Your task to perform on an android device: star an email in the gmail app Image 0: 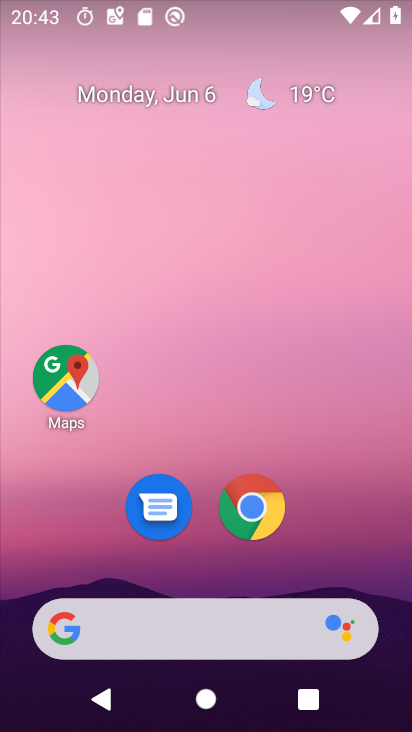
Step 0: press home button
Your task to perform on an android device: star an email in the gmail app Image 1: 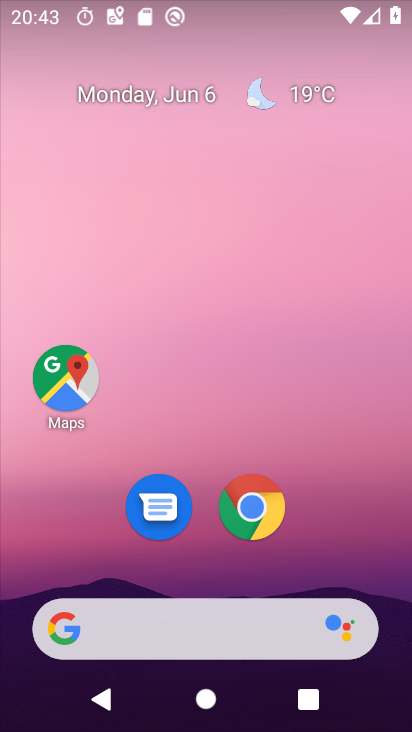
Step 1: drag from (375, 523) to (371, 23)
Your task to perform on an android device: star an email in the gmail app Image 2: 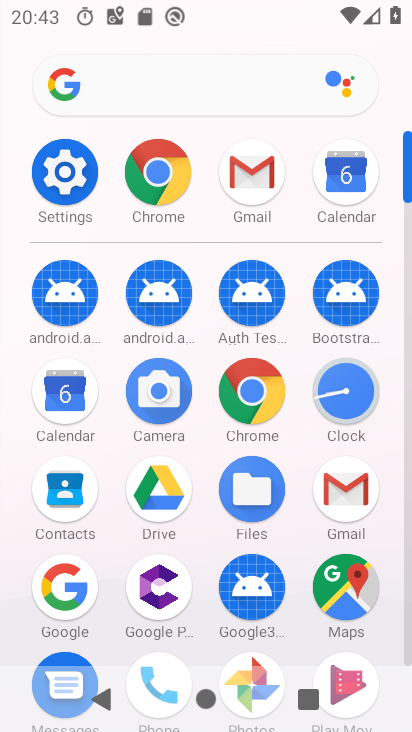
Step 2: click (256, 201)
Your task to perform on an android device: star an email in the gmail app Image 3: 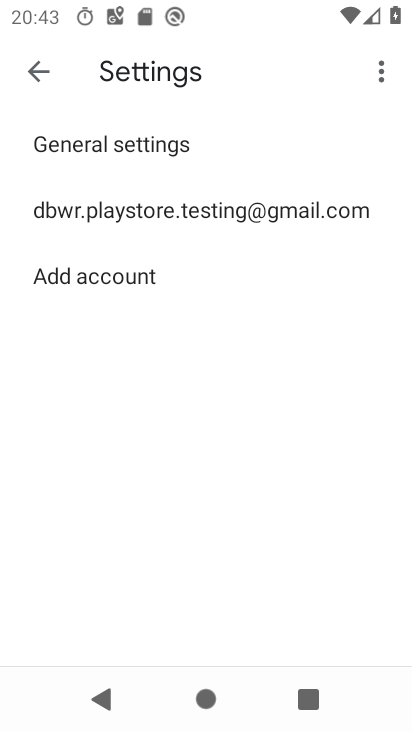
Step 3: click (30, 68)
Your task to perform on an android device: star an email in the gmail app Image 4: 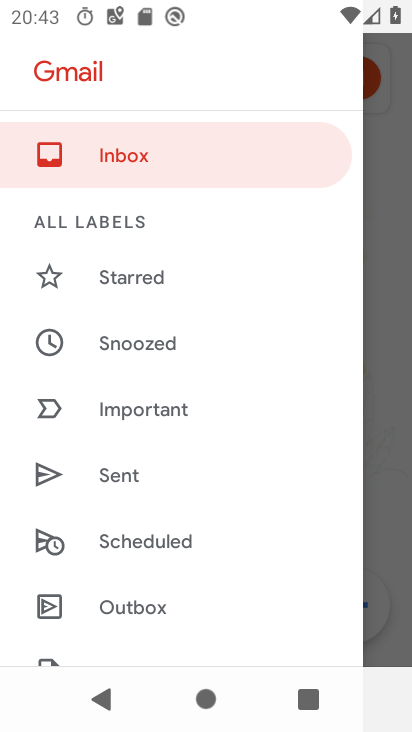
Step 4: task complete